Your task to perform on an android device: choose inbox layout in the gmail app Image 0: 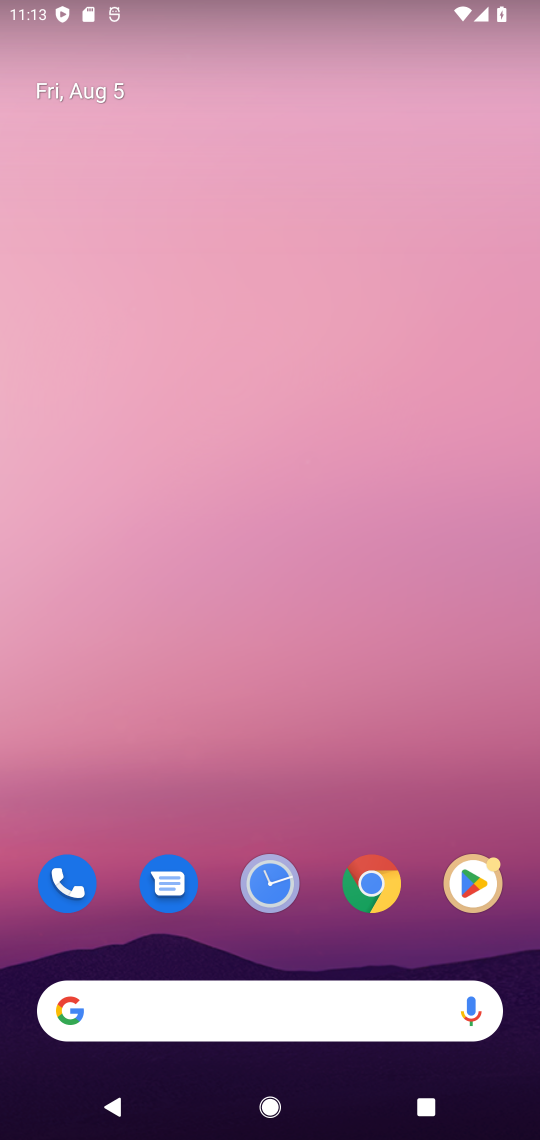
Step 0: drag from (269, 829) to (209, 155)
Your task to perform on an android device: choose inbox layout in the gmail app Image 1: 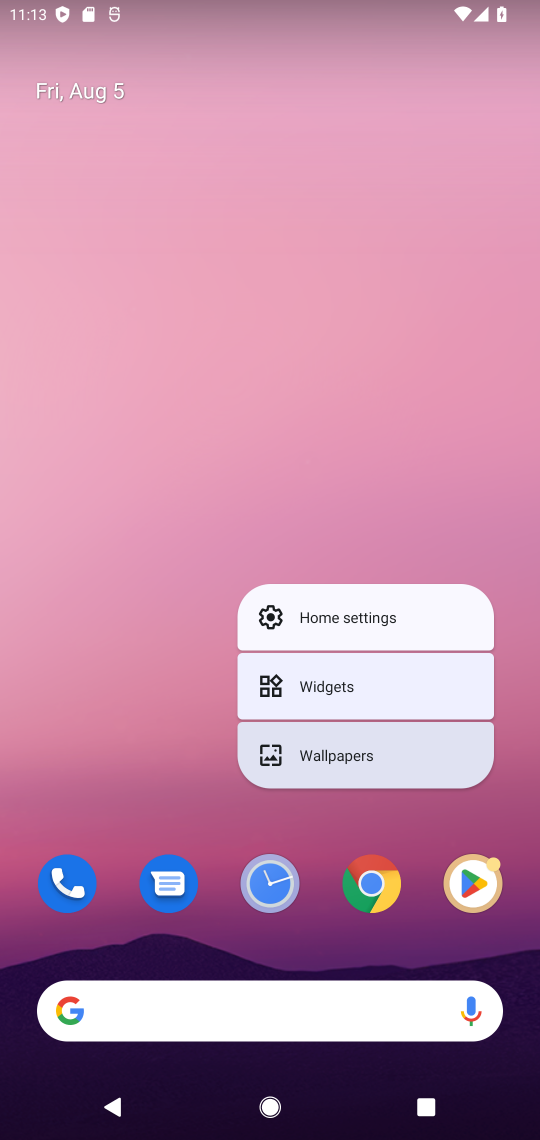
Step 1: click (126, 741)
Your task to perform on an android device: choose inbox layout in the gmail app Image 2: 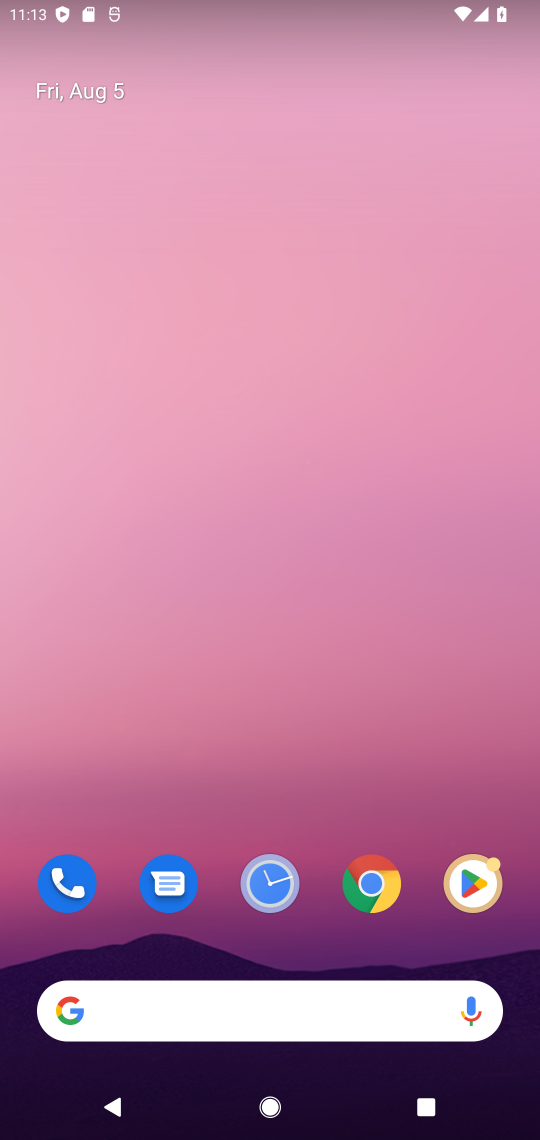
Step 2: drag from (126, 741) to (129, 639)
Your task to perform on an android device: choose inbox layout in the gmail app Image 3: 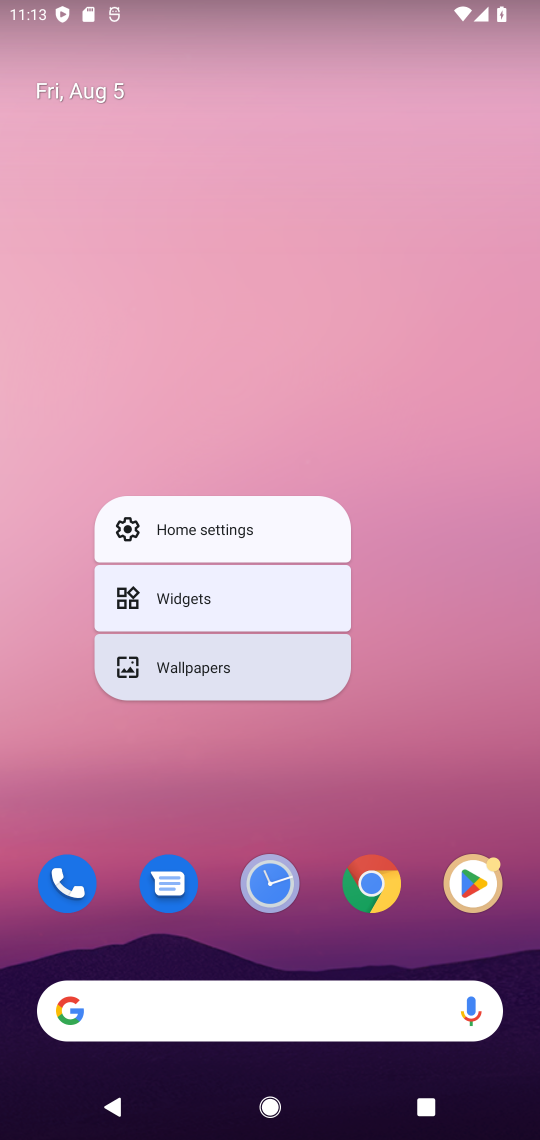
Step 3: drag from (436, 805) to (405, 193)
Your task to perform on an android device: choose inbox layout in the gmail app Image 4: 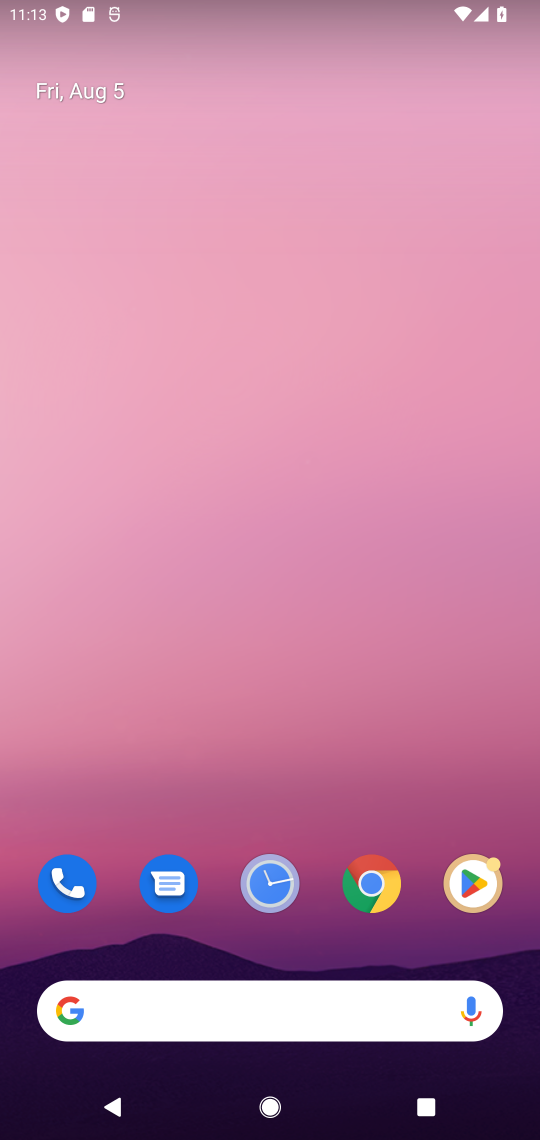
Step 4: drag from (424, 799) to (511, 191)
Your task to perform on an android device: choose inbox layout in the gmail app Image 5: 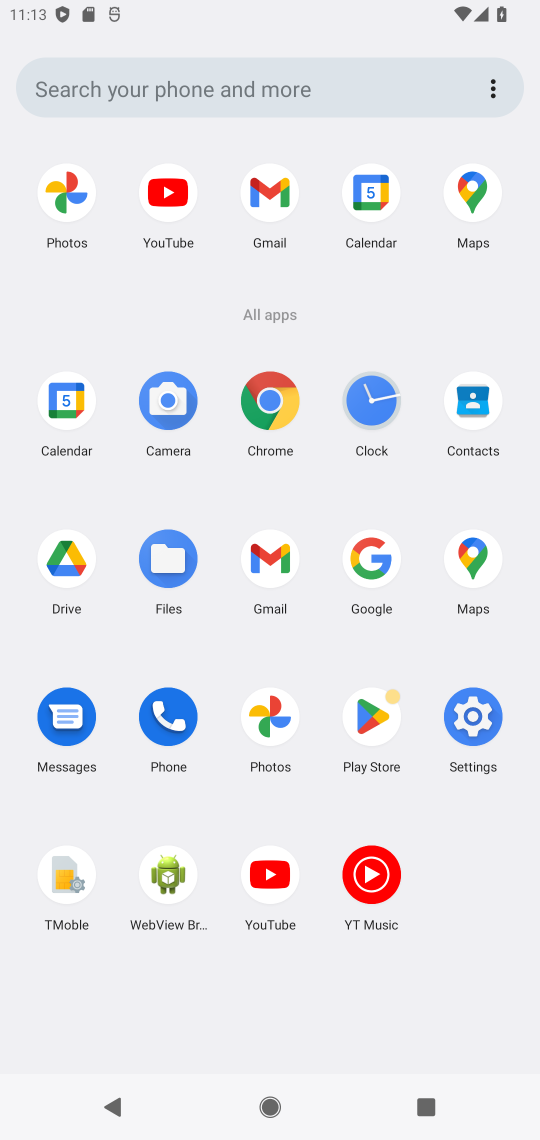
Step 5: click (259, 200)
Your task to perform on an android device: choose inbox layout in the gmail app Image 6: 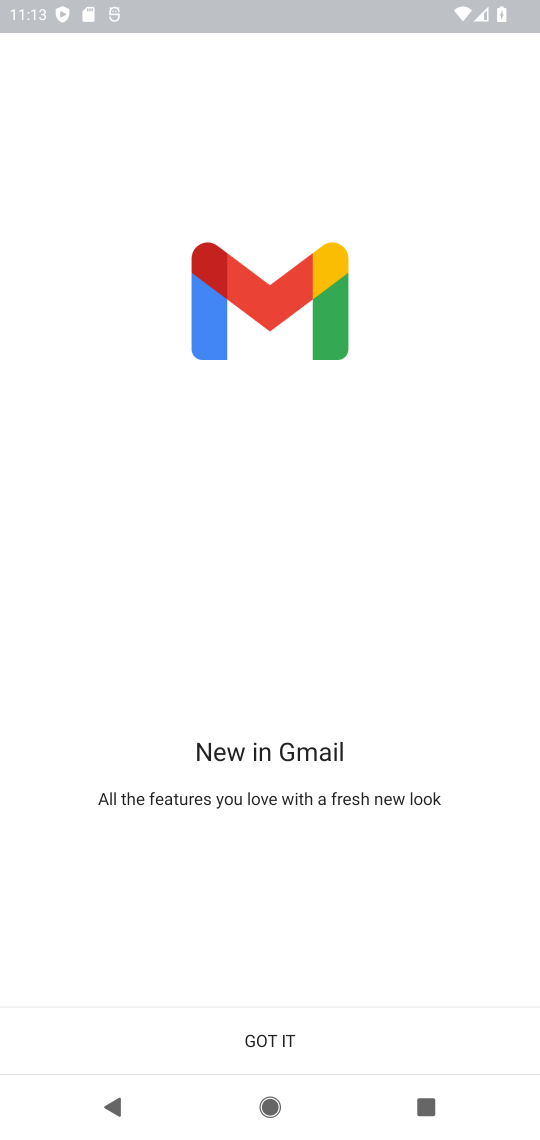
Step 6: click (312, 1032)
Your task to perform on an android device: choose inbox layout in the gmail app Image 7: 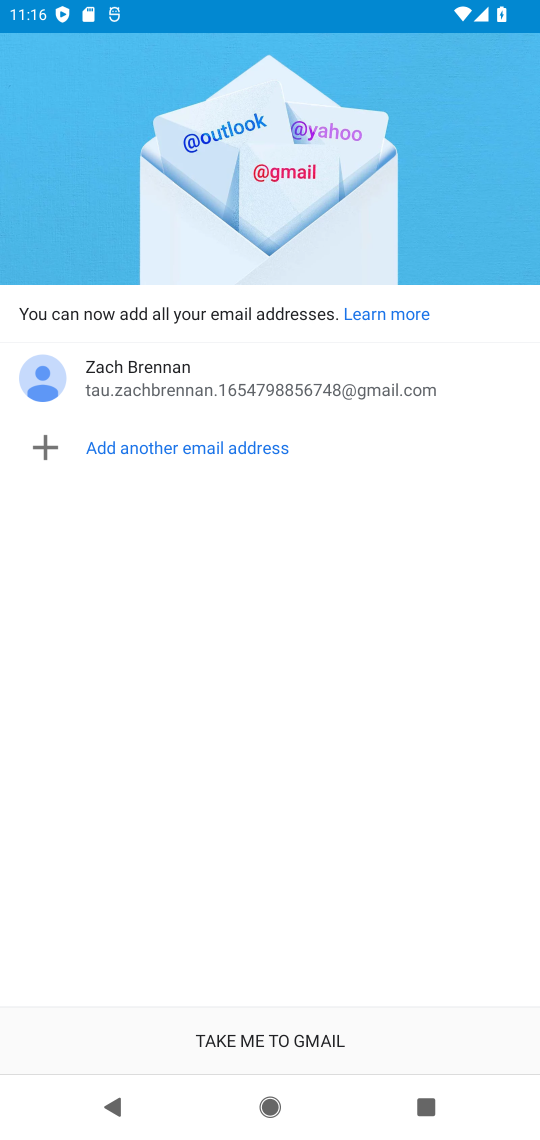
Step 7: task complete